Your task to perform on an android device: move an email to a new category in the gmail app Image 0: 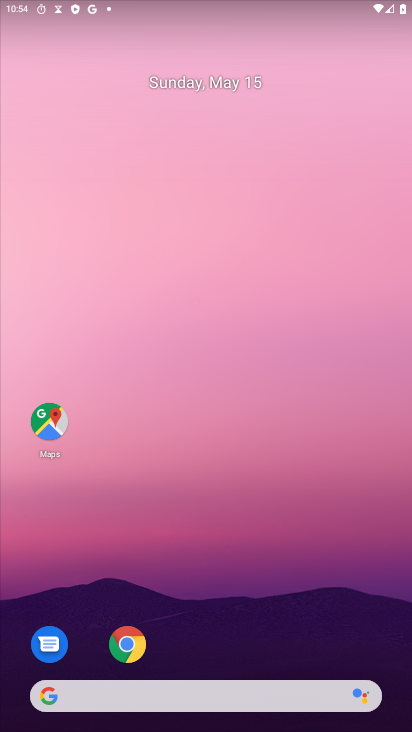
Step 0: drag from (256, 610) to (201, 220)
Your task to perform on an android device: move an email to a new category in the gmail app Image 1: 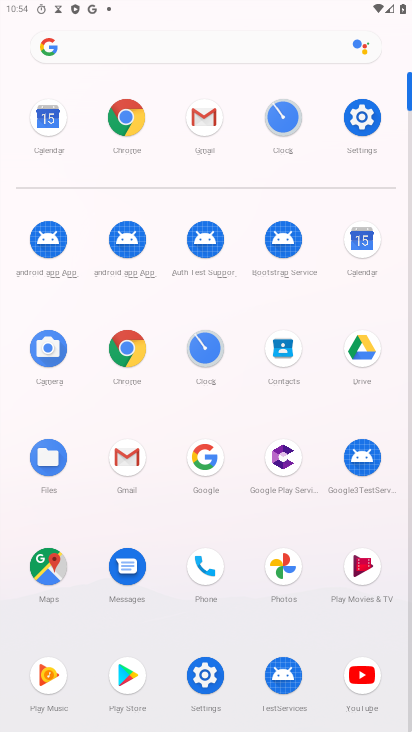
Step 1: click (133, 469)
Your task to perform on an android device: move an email to a new category in the gmail app Image 2: 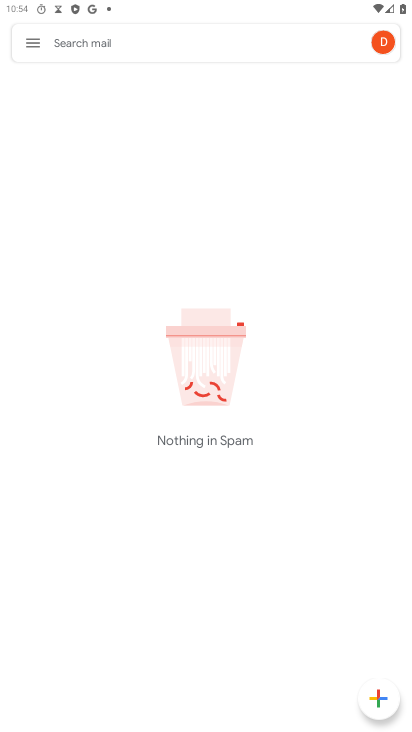
Step 2: click (31, 48)
Your task to perform on an android device: move an email to a new category in the gmail app Image 3: 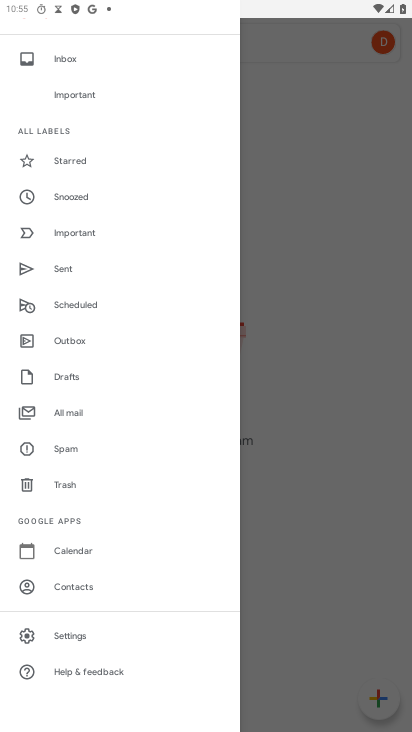
Step 3: click (94, 413)
Your task to perform on an android device: move an email to a new category in the gmail app Image 4: 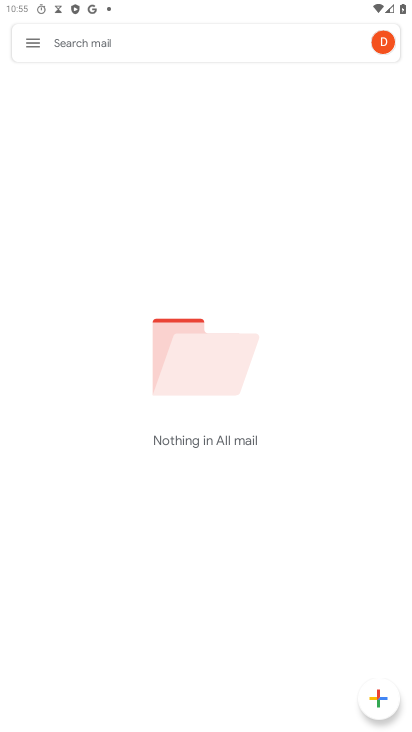
Step 4: task complete